Your task to perform on an android device: turn notification dots on Image 0: 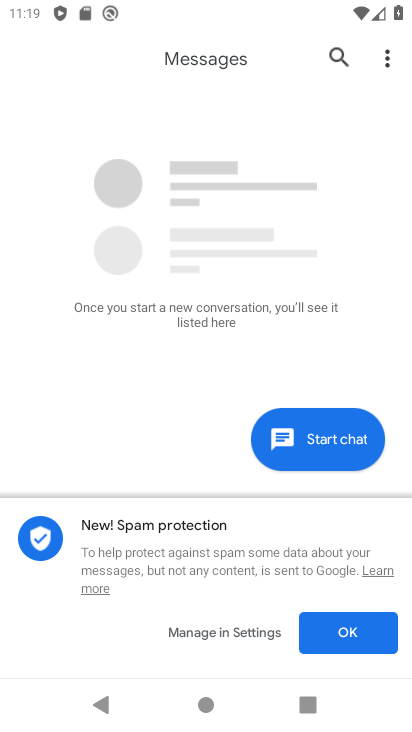
Step 0: press home button
Your task to perform on an android device: turn notification dots on Image 1: 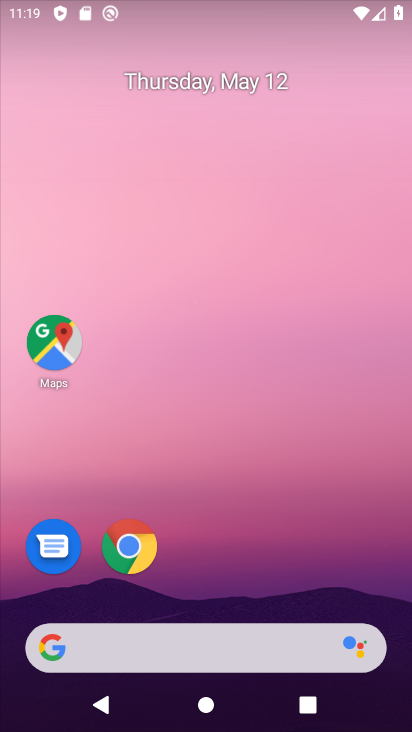
Step 1: drag from (212, 718) to (222, 112)
Your task to perform on an android device: turn notification dots on Image 2: 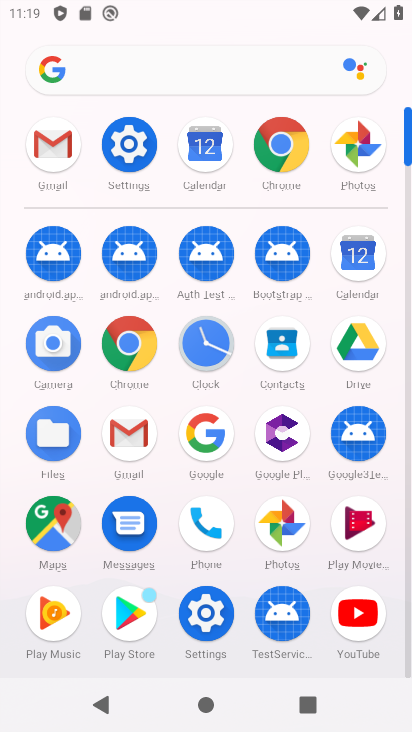
Step 2: click (130, 148)
Your task to perform on an android device: turn notification dots on Image 3: 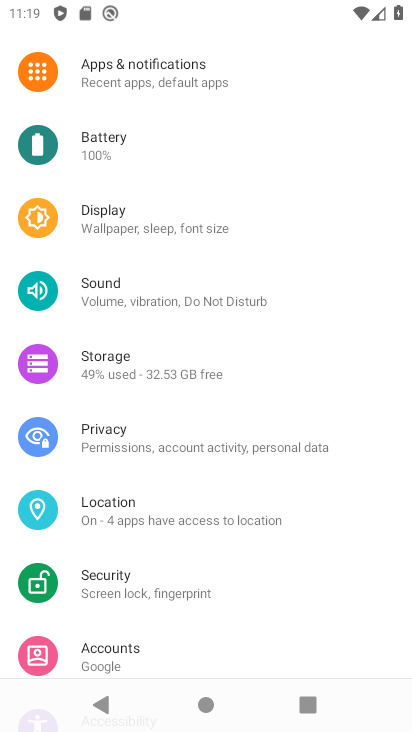
Step 3: drag from (212, 153) to (241, 458)
Your task to perform on an android device: turn notification dots on Image 4: 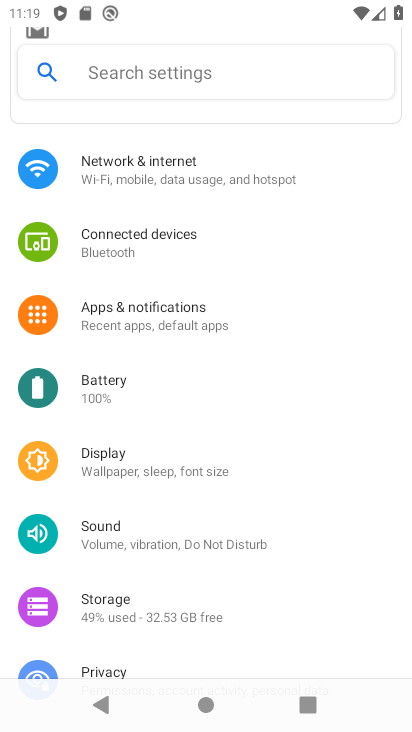
Step 4: click (163, 316)
Your task to perform on an android device: turn notification dots on Image 5: 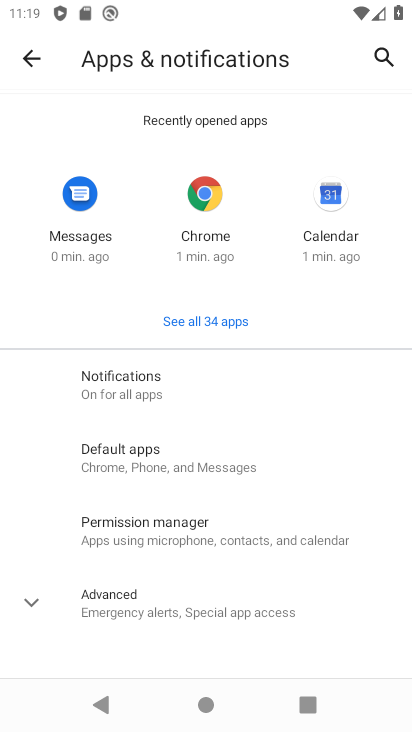
Step 5: click (127, 395)
Your task to perform on an android device: turn notification dots on Image 6: 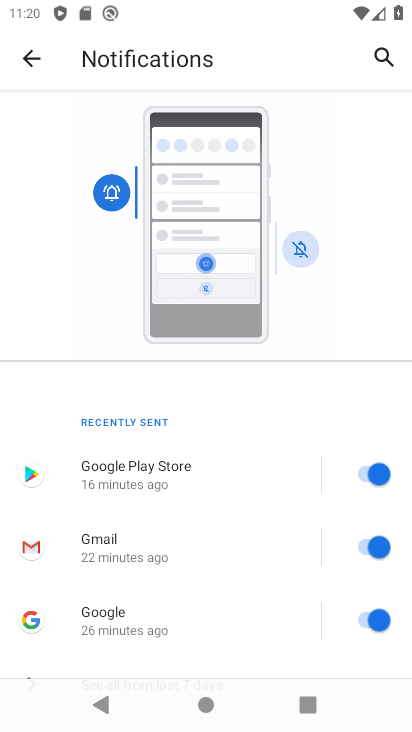
Step 6: drag from (154, 630) to (166, 259)
Your task to perform on an android device: turn notification dots on Image 7: 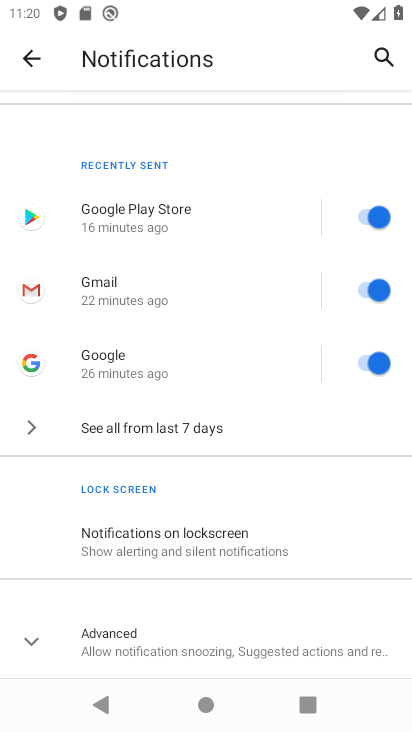
Step 7: click (134, 636)
Your task to perform on an android device: turn notification dots on Image 8: 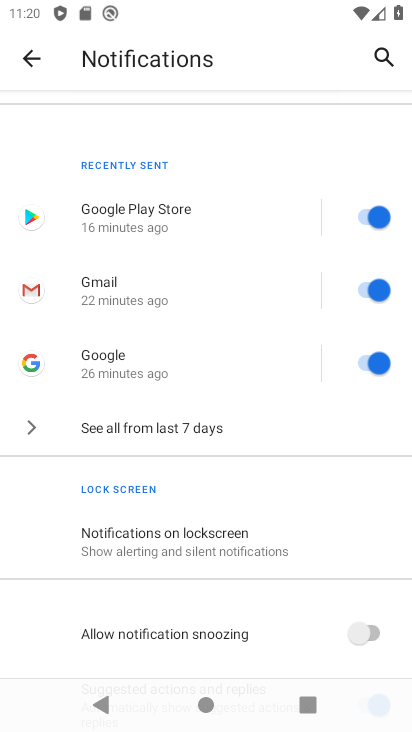
Step 8: task complete